Your task to perform on an android device: Search for Italian restaurants on Maps Image 0: 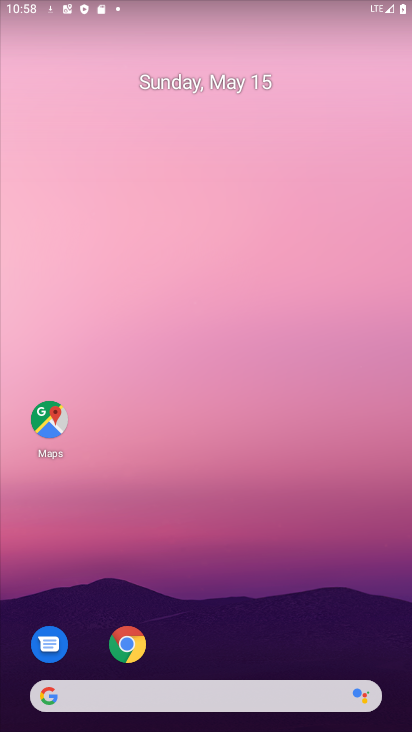
Step 0: drag from (240, 709) to (381, 294)
Your task to perform on an android device: Search for Italian restaurants on Maps Image 1: 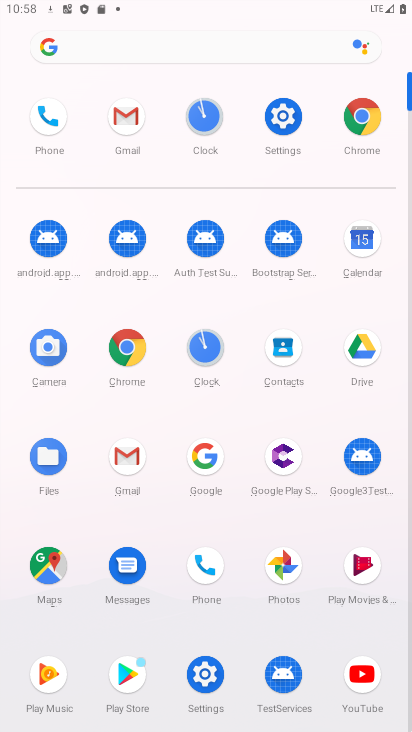
Step 1: click (25, 561)
Your task to perform on an android device: Search for Italian restaurants on Maps Image 2: 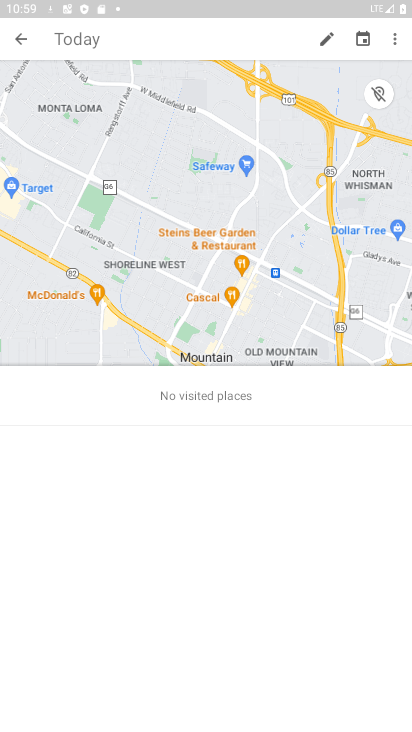
Step 2: click (35, 34)
Your task to perform on an android device: Search for Italian restaurants on Maps Image 3: 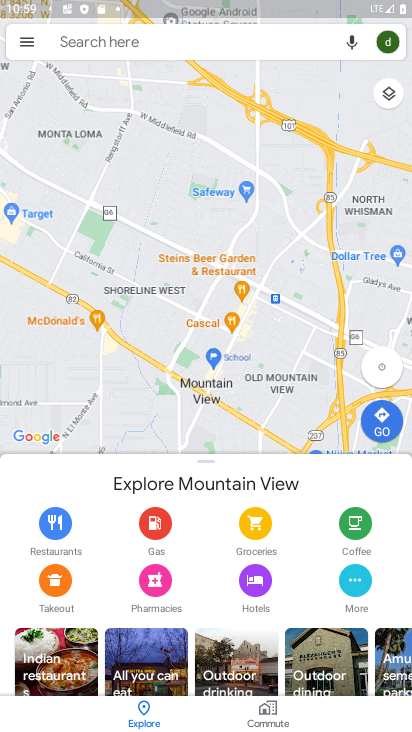
Step 3: click (194, 41)
Your task to perform on an android device: Search for Italian restaurants on Maps Image 4: 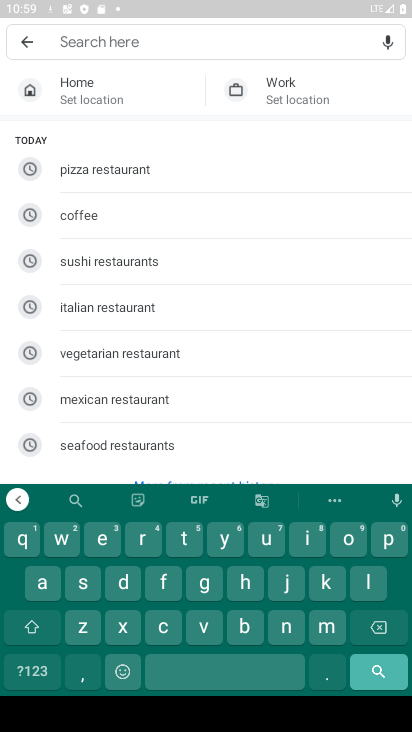
Step 4: click (117, 313)
Your task to perform on an android device: Search for Italian restaurants on Maps Image 5: 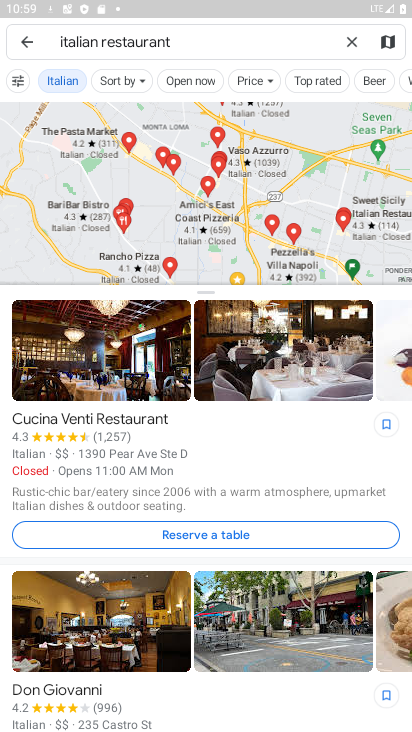
Step 5: task complete